Your task to perform on an android device: toggle translation in the chrome app Image 0: 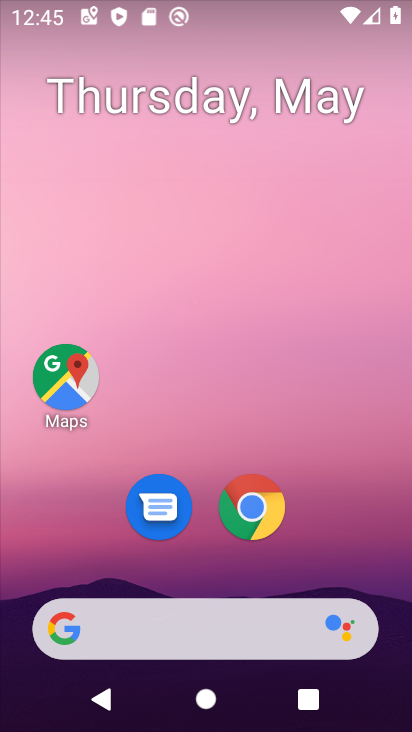
Step 0: drag from (229, 573) to (265, 98)
Your task to perform on an android device: toggle translation in the chrome app Image 1: 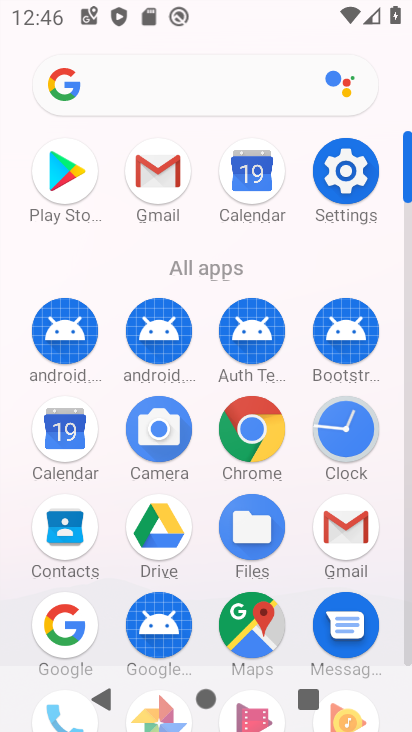
Step 1: click (253, 474)
Your task to perform on an android device: toggle translation in the chrome app Image 2: 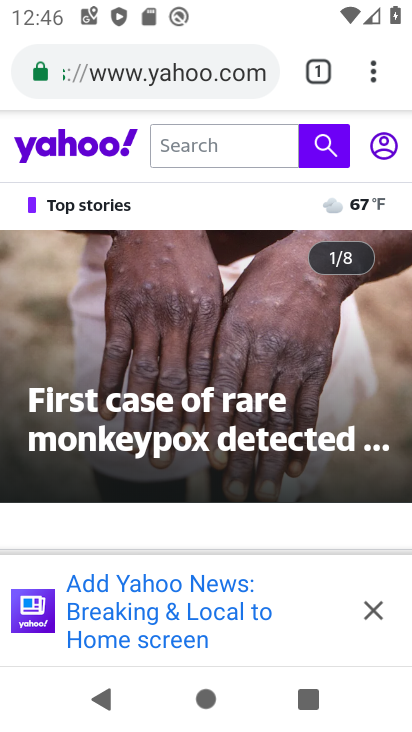
Step 2: click (379, 62)
Your task to perform on an android device: toggle translation in the chrome app Image 3: 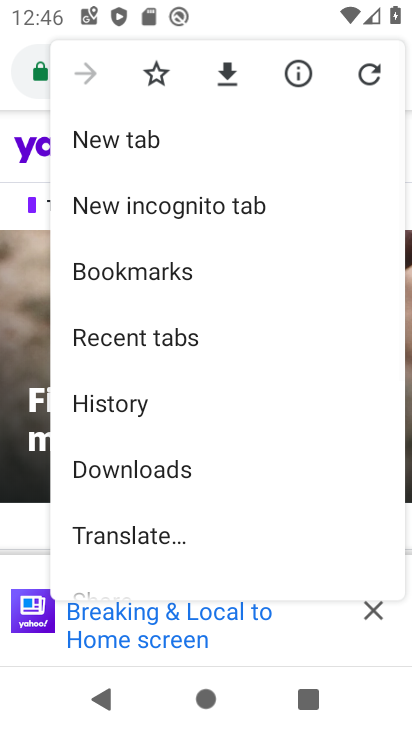
Step 3: drag from (190, 491) to (191, 159)
Your task to perform on an android device: toggle translation in the chrome app Image 4: 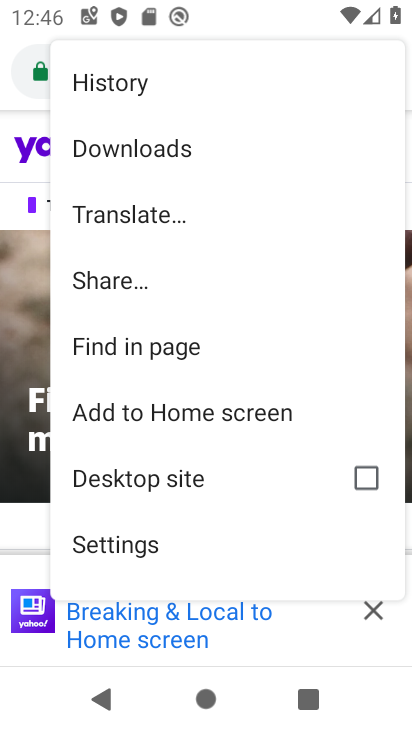
Step 4: drag from (192, 515) to (179, 131)
Your task to perform on an android device: toggle translation in the chrome app Image 5: 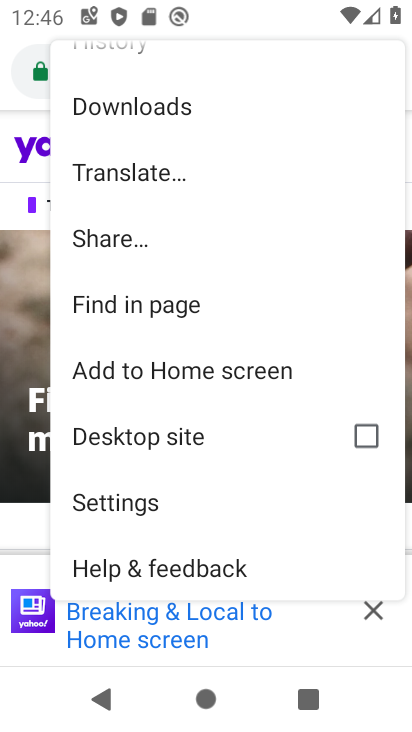
Step 5: click (138, 508)
Your task to perform on an android device: toggle translation in the chrome app Image 6: 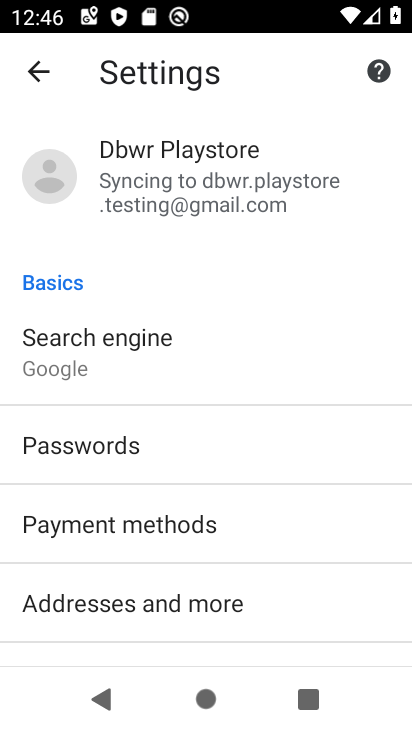
Step 6: drag from (186, 599) to (206, 166)
Your task to perform on an android device: toggle translation in the chrome app Image 7: 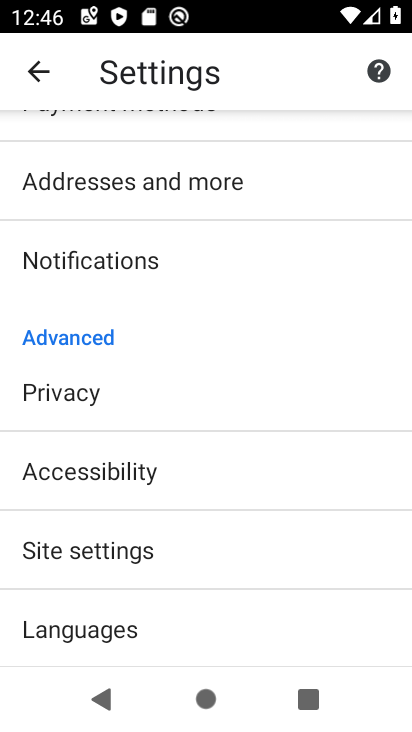
Step 7: drag from (158, 628) to (190, 375)
Your task to perform on an android device: toggle translation in the chrome app Image 8: 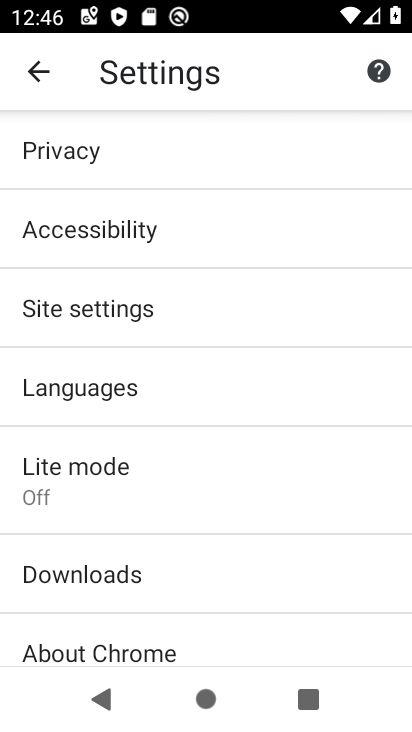
Step 8: drag from (153, 581) to (180, 321)
Your task to perform on an android device: toggle translation in the chrome app Image 9: 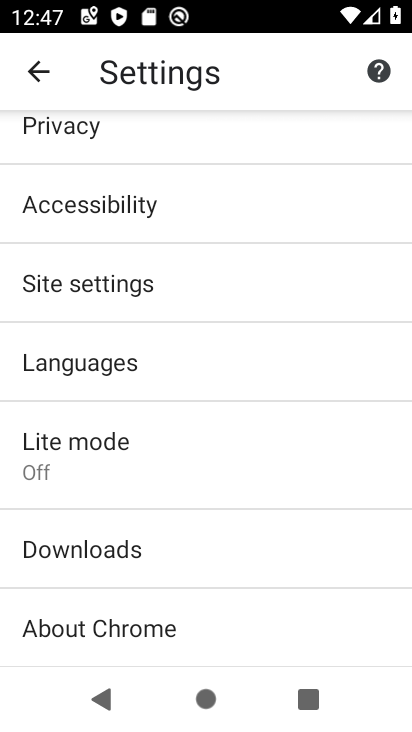
Step 9: click (104, 379)
Your task to perform on an android device: toggle translation in the chrome app Image 10: 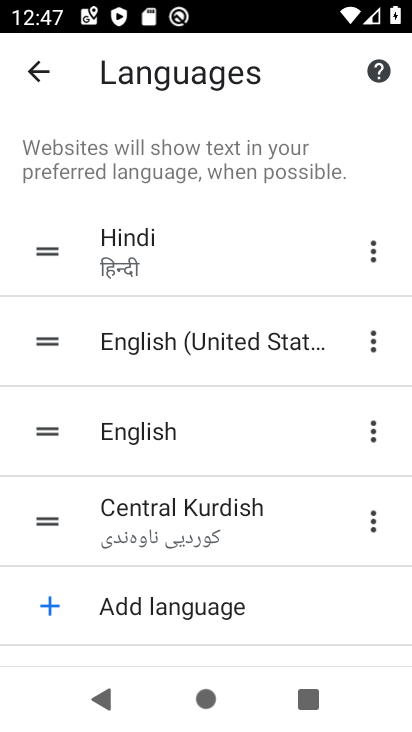
Step 10: drag from (230, 598) to (234, 289)
Your task to perform on an android device: toggle translation in the chrome app Image 11: 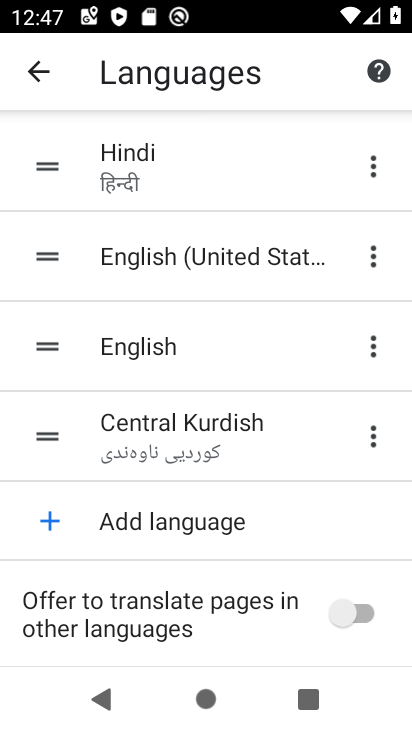
Step 11: click (359, 614)
Your task to perform on an android device: toggle translation in the chrome app Image 12: 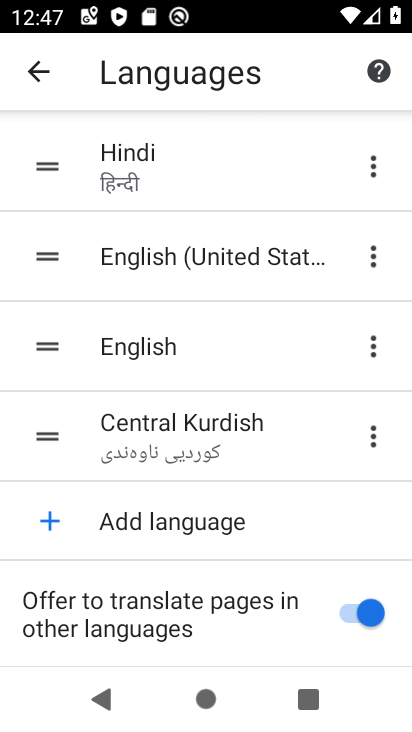
Step 12: task complete